Your task to perform on an android device: See recent photos Image 0: 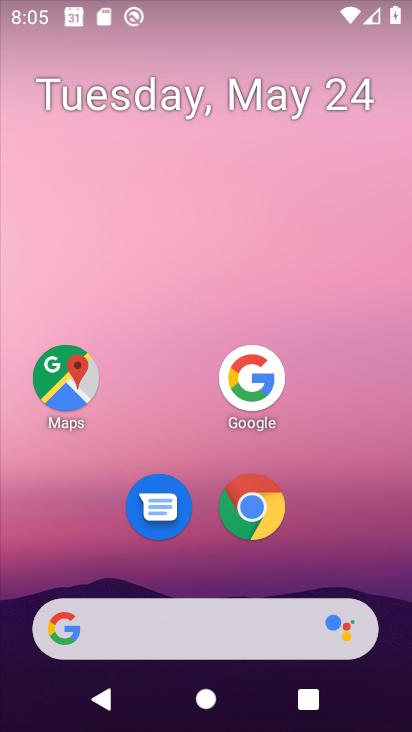
Step 0: press home button
Your task to perform on an android device: See recent photos Image 1: 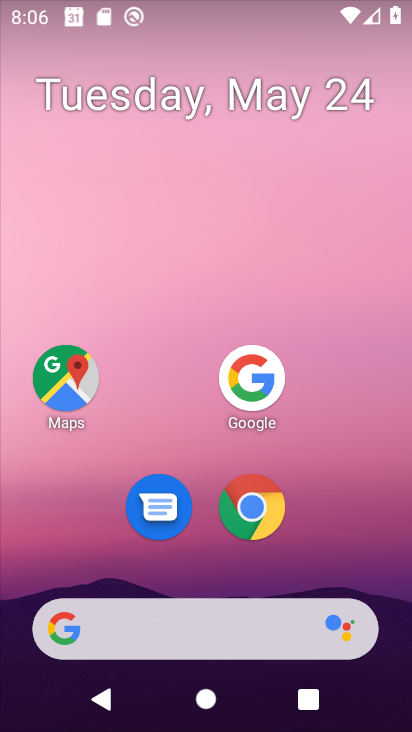
Step 1: drag from (191, 632) to (343, 146)
Your task to perform on an android device: See recent photos Image 2: 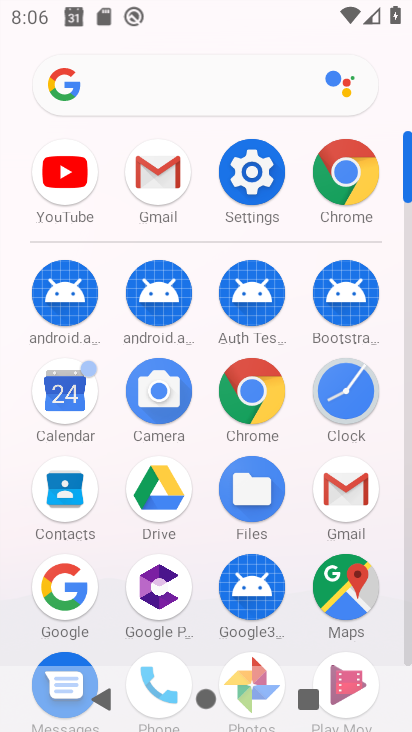
Step 2: drag from (200, 572) to (322, 238)
Your task to perform on an android device: See recent photos Image 3: 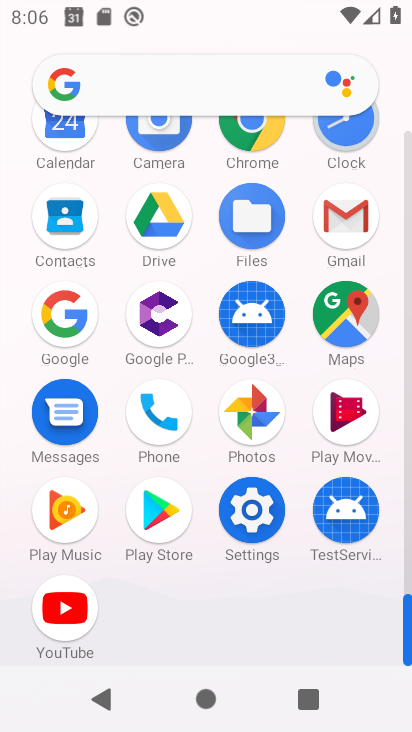
Step 3: click (256, 427)
Your task to perform on an android device: See recent photos Image 4: 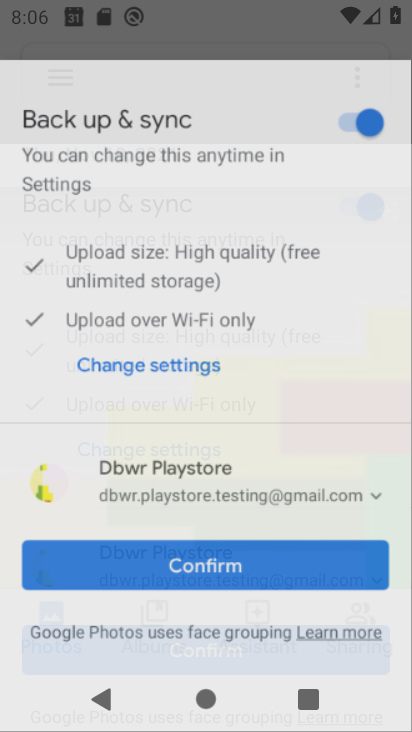
Step 4: click (194, 565)
Your task to perform on an android device: See recent photos Image 5: 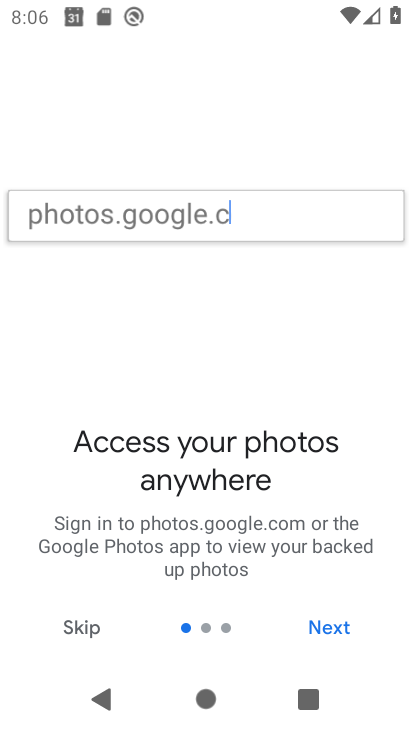
Step 5: click (314, 614)
Your task to perform on an android device: See recent photos Image 6: 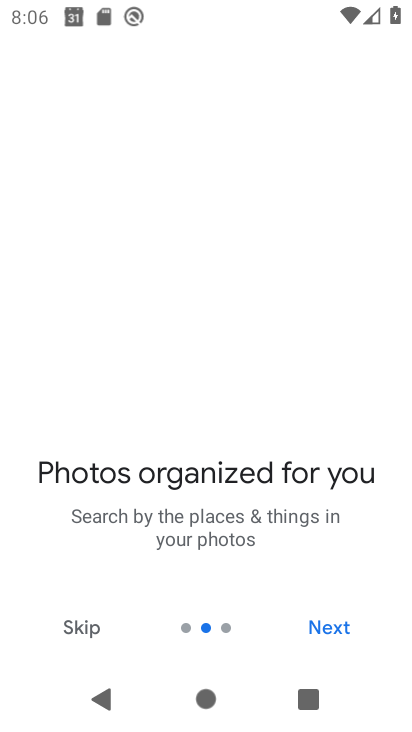
Step 6: click (321, 626)
Your task to perform on an android device: See recent photos Image 7: 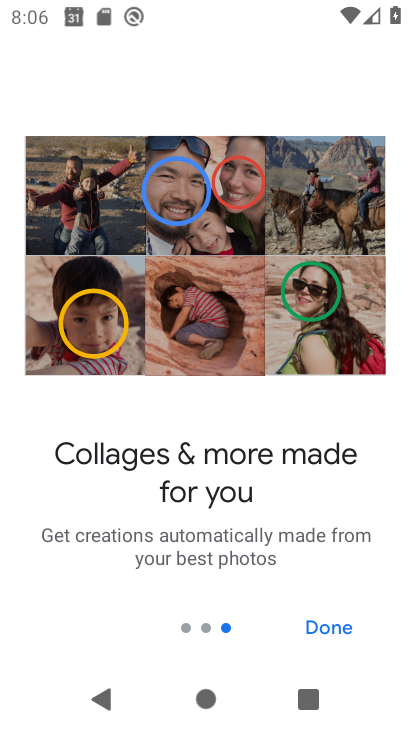
Step 7: click (322, 626)
Your task to perform on an android device: See recent photos Image 8: 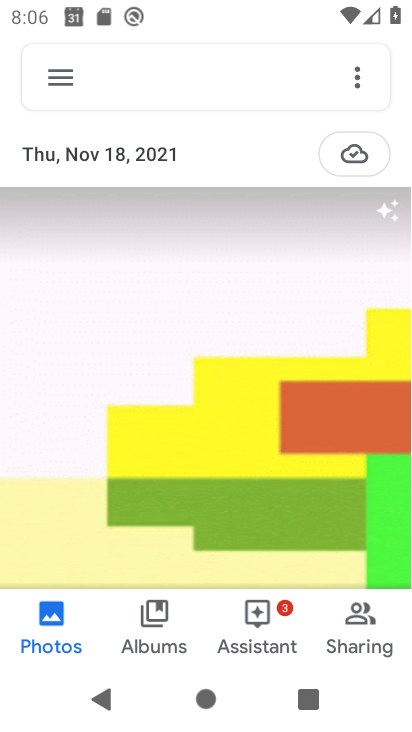
Step 8: click (162, 632)
Your task to perform on an android device: See recent photos Image 9: 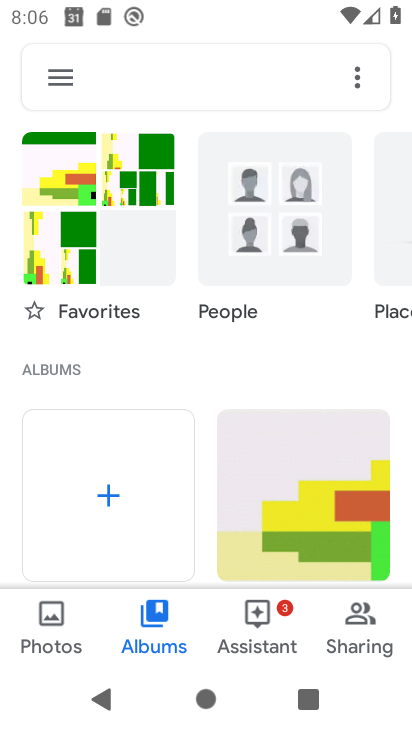
Step 9: drag from (247, 532) to (364, 276)
Your task to perform on an android device: See recent photos Image 10: 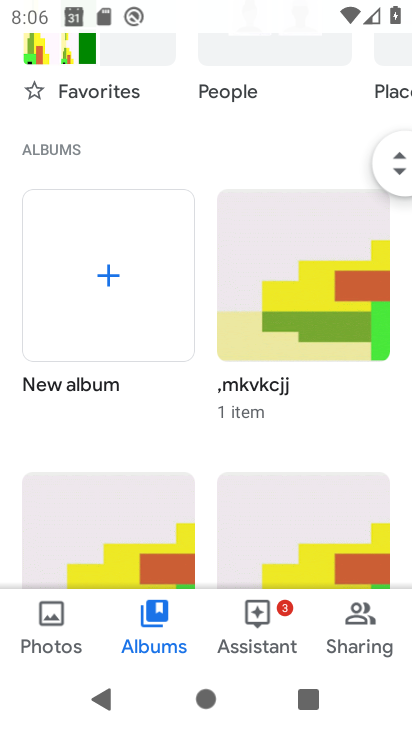
Step 10: drag from (337, 402) to (295, 629)
Your task to perform on an android device: See recent photos Image 11: 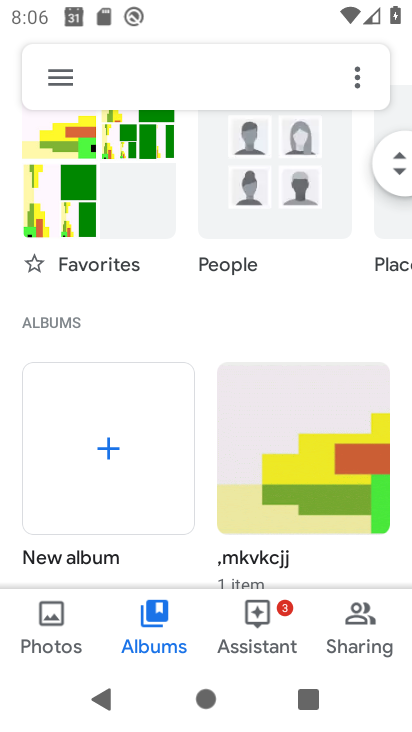
Step 11: click (274, 647)
Your task to perform on an android device: See recent photos Image 12: 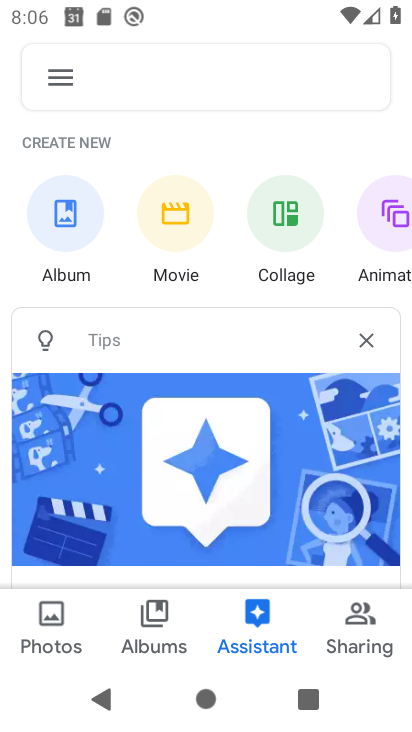
Step 12: task complete